Your task to perform on an android device: Show me recent news Image 0: 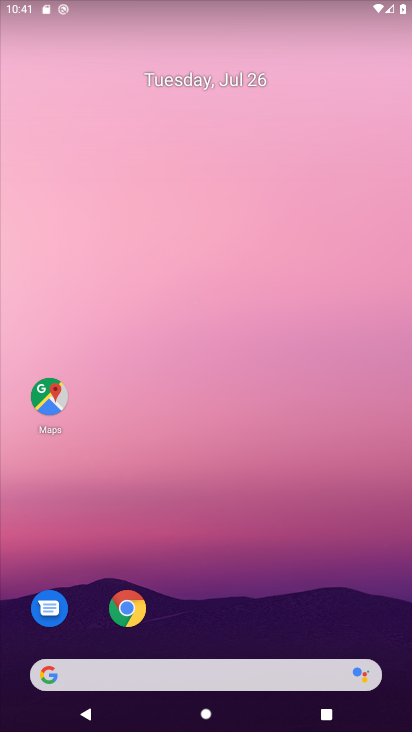
Step 0: drag from (282, 560) to (244, 20)
Your task to perform on an android device: Show me recent news Image 1: 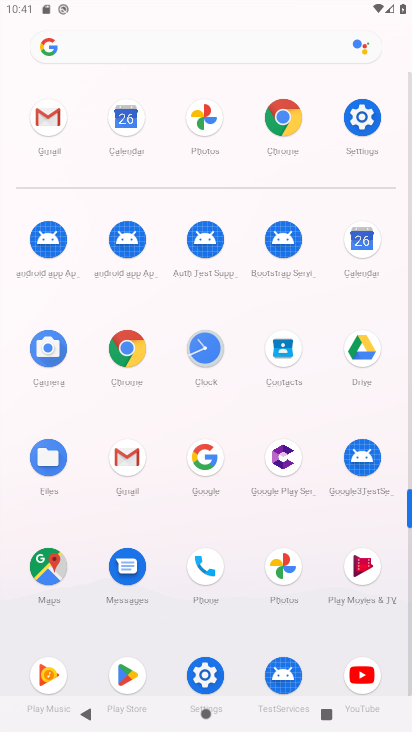
Step 1: click (286, 118)
Your task to perform on an android device: Show me recent news Image 2: 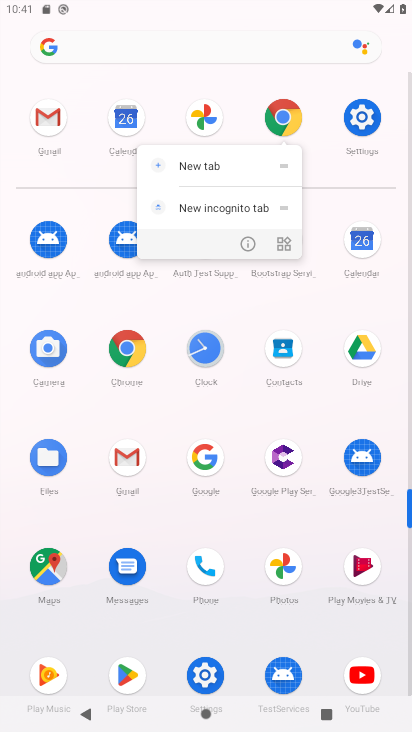
Step 2: click (284, 126)
Your task to perform on an android device: Show me recent news Image 3: 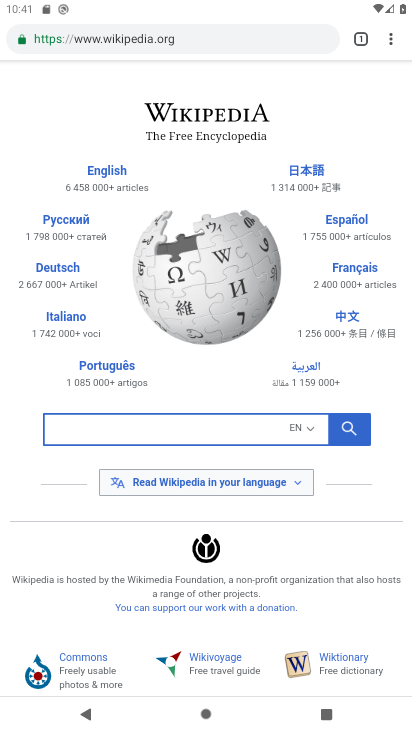
Step 3: click (202, 33)
Your task to perform on an android device: Show me recent news Image 4: 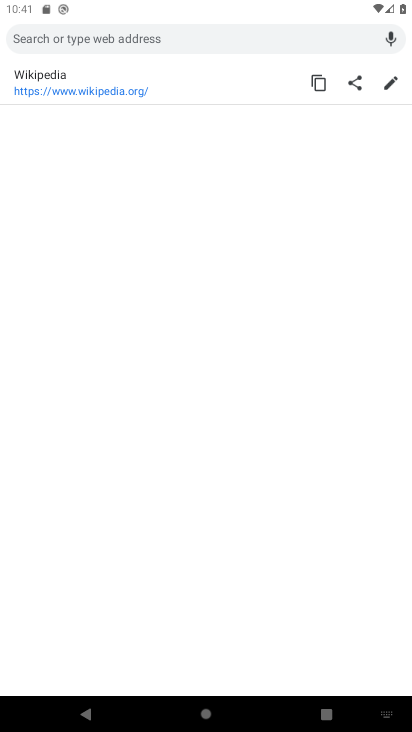
Step 4: type "news"
Your task to perform on an android device: Show me recent news Image 5: 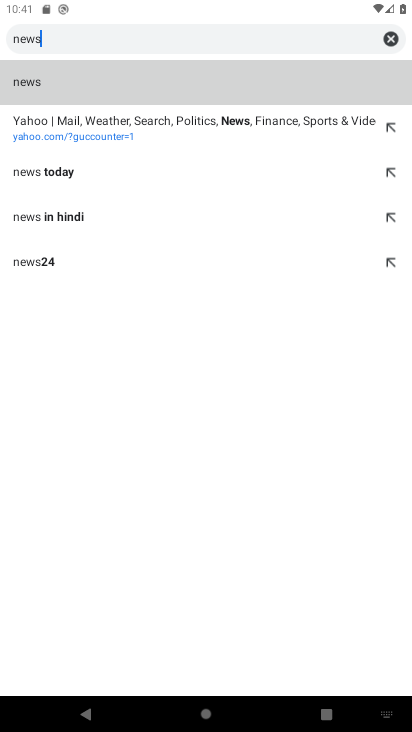
Step 5: click (39, 80)
Your task to perform on an android device: Show me recent news Image 6: 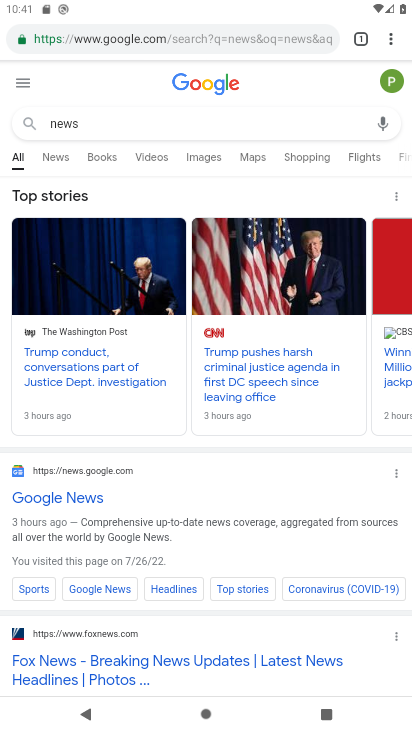
Step 6: click (66, 499)
Your task to perform on an android device: Show me recent news Image 7: 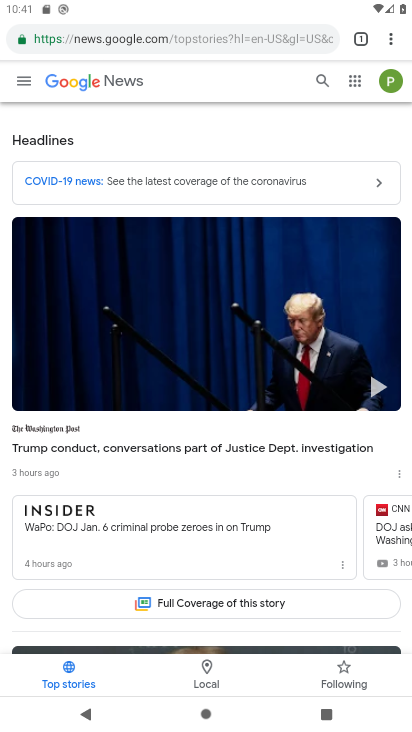
Step 7: task complete